Your task to perform on an android device: Go to Wikipedia Image 0: 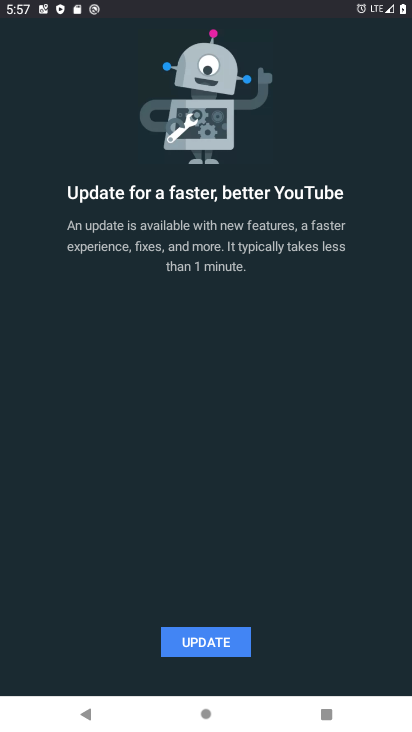
Step 0: press home button
Your task to perform on an android device: Go to Wikipedia Image 1: 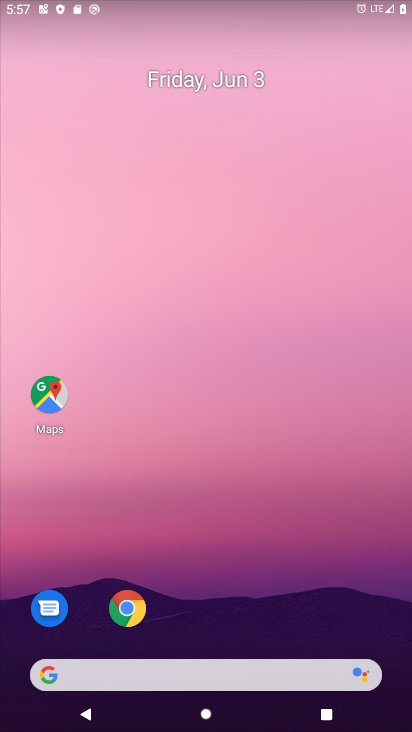
Step 1: click (126, 612)
Your task to perform on an android device: Go to Wikipedia Image 2: 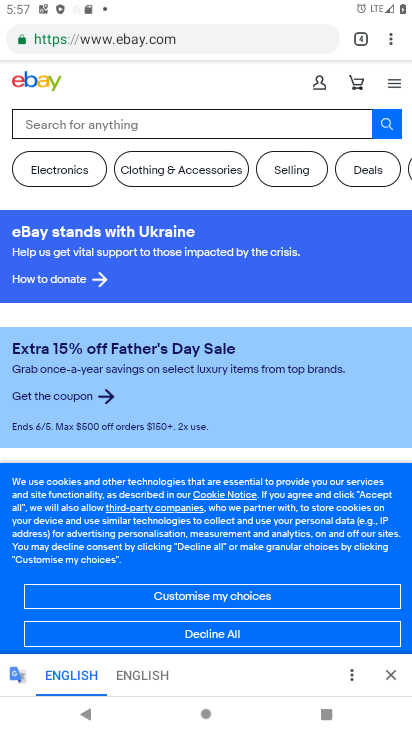
Step 2: click (358, 27)
Your task to perform on an android device: Go to Wikipedia Image 3: 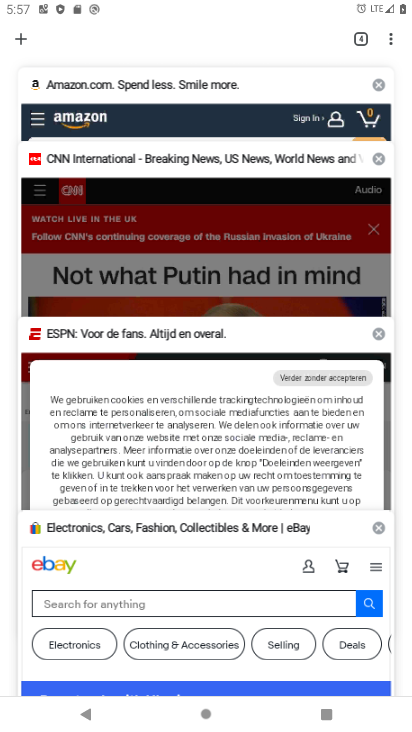
Step 3: click (25, 35)
Your task to perform on an android device: Go to Wikipedia Image 4: 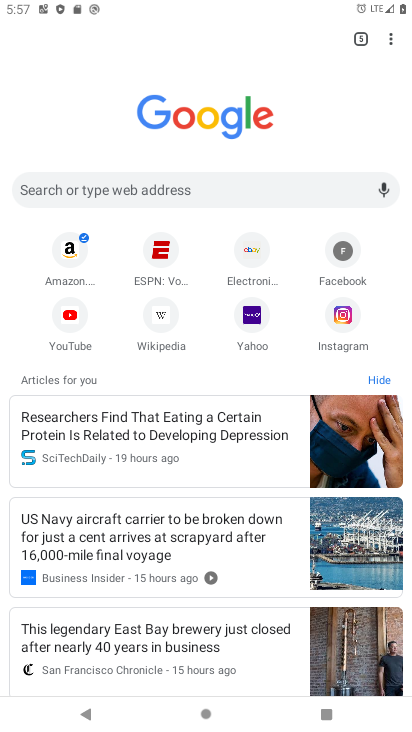
Step 4: click (147, 327)
Your task to perform on an android device: Go to Wikipedia Image 5: 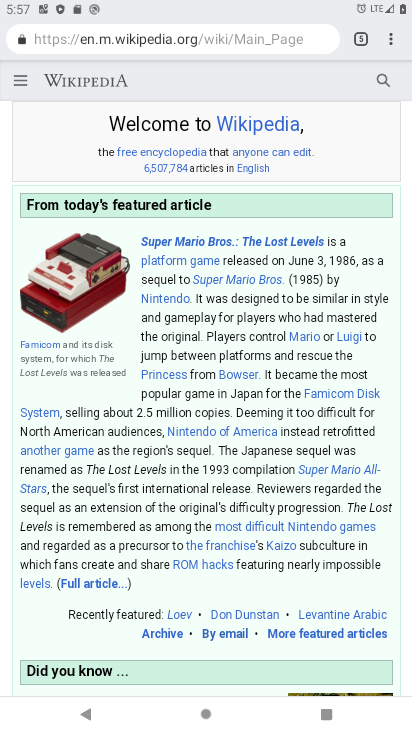
Step 5: task complete